Your task to perform on an android device: delete a single message in the gmail app Image 0: 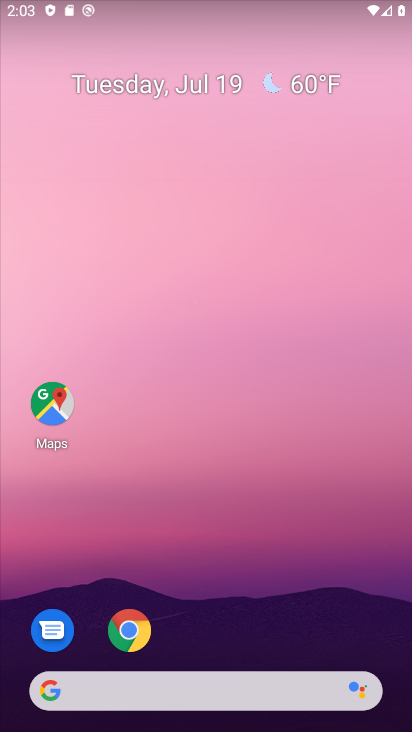
Step 0: drag from (210, 455) to (215, 206)
Your task to perform on an android device: delete a single message in the gmail app Image 1: 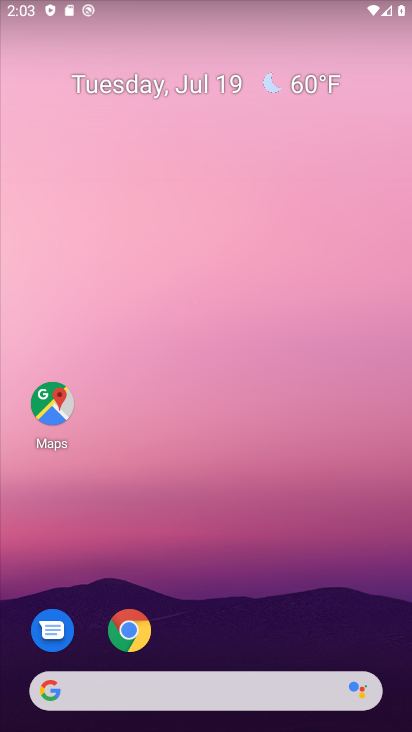
Step 1: drag from (234, 617) to (195, 159)
Your task to perform on an android device: delete a single message in the gmail app Image 2: 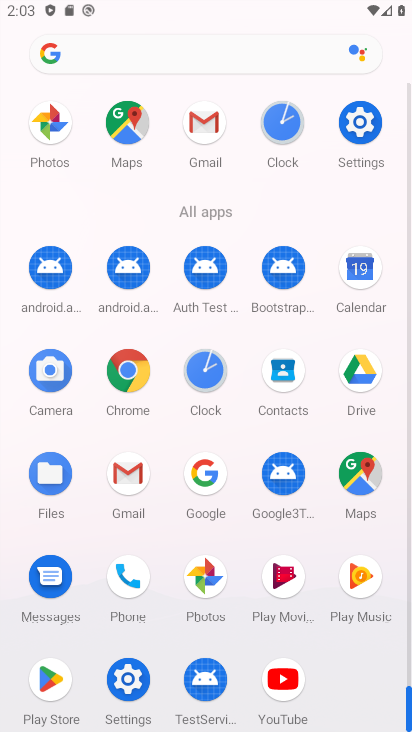
Step 2: click (366, 125)
Your task to perform on an android device: delete a single message in the gmail app Image 3: 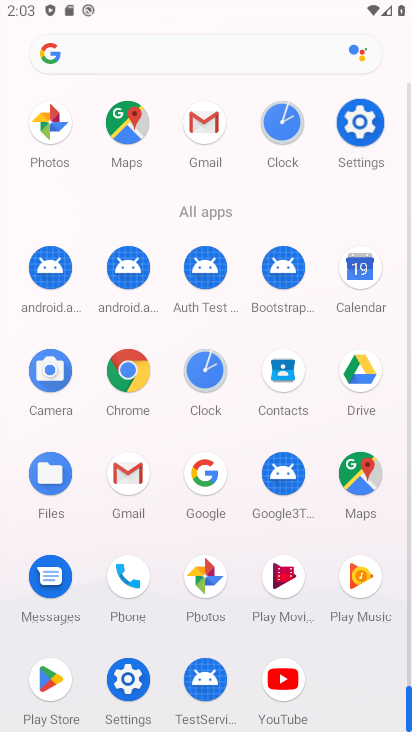
Step 3: click (376, 125)
Your task to perform on an android device: delete a single message in the gmail app Image 4: 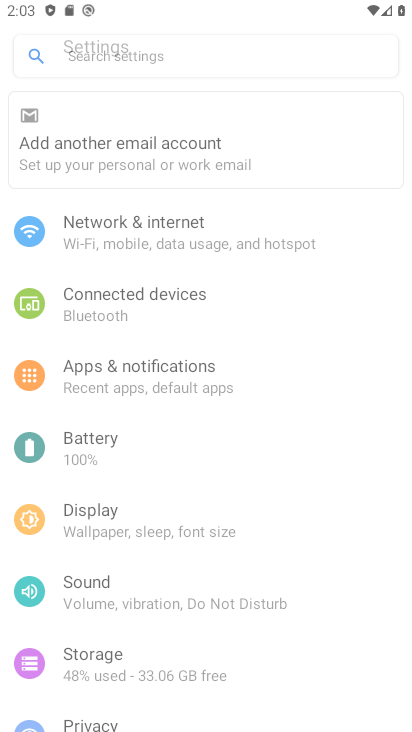
Step 4: click (369, 127)
Your task to perform on an android device: delete a single message in the gmail app Image 5: 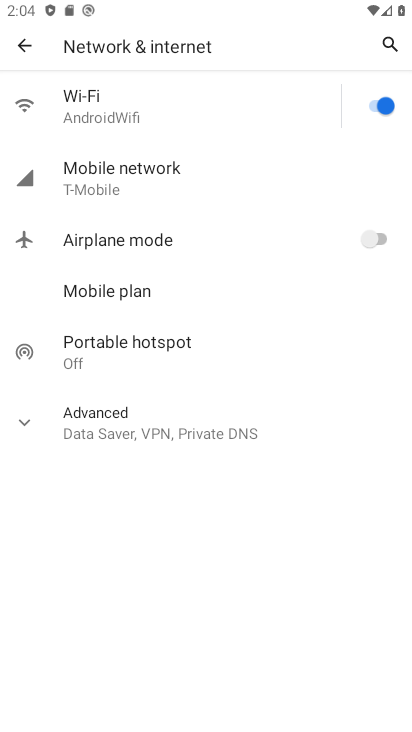
Step 5: click (28, 39)
Your task to perform on an android device: delete a single message in the gmail app Image 6: 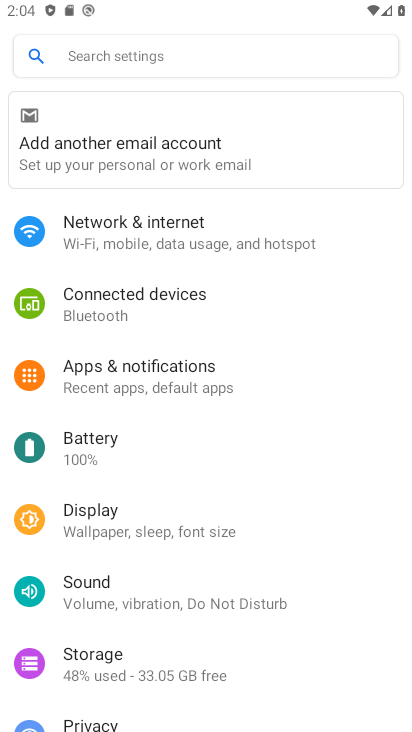
Step 6: press back button
Your task to perform on an android device: delete a single message in the gmail app Image 7: 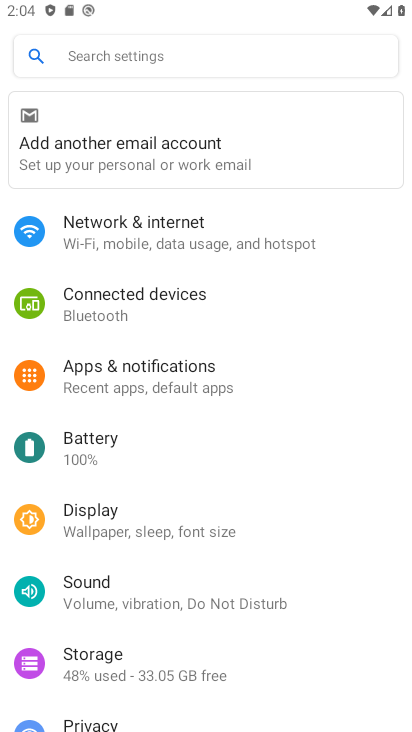
Step 7: press back button
Your task to perform on an android device: delete a single message in the gmail app Image 8: 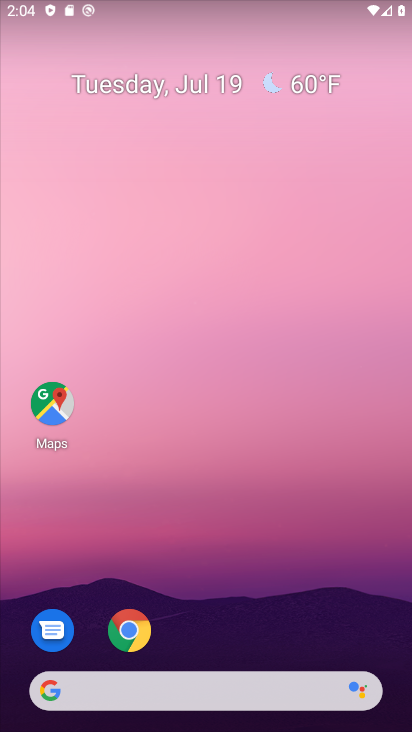
Step 8: drag from (271, 547) to (252, 25)
Your task to perform on an android device: delete a single message in the gmail app Image 9: 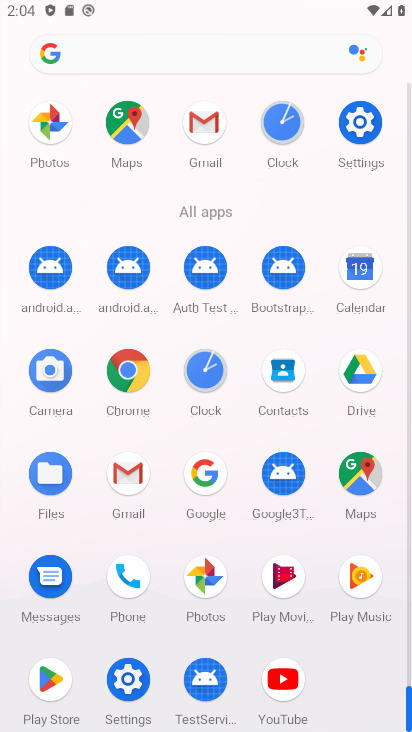
Step 9: click (119, 445)
Your task to perform on an android device: delete a single message in the gmail app Image 10: 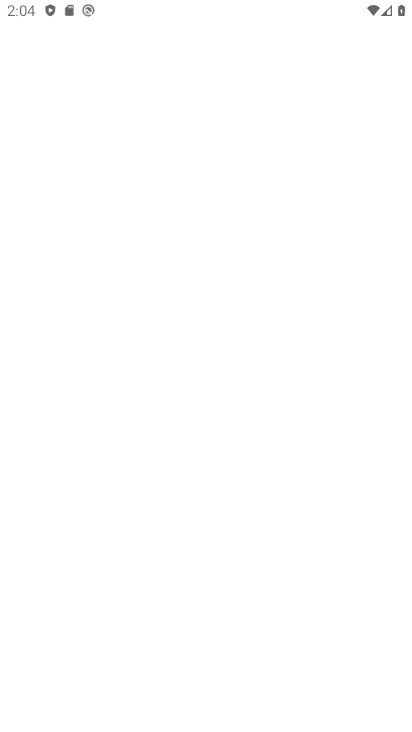
Step 10: click (129, 472)
Your task to perform on an android device: delete a single message in the gmail app Image 11: 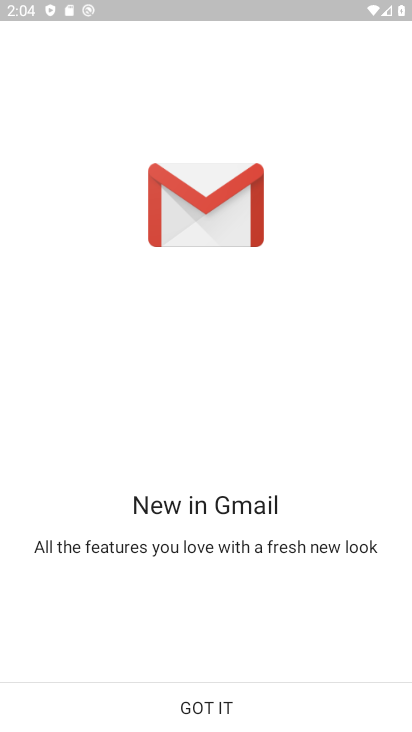
Step 11: click (212, 704)
Your task to perform on an android device: delete a single message in the gmail app Image 12: 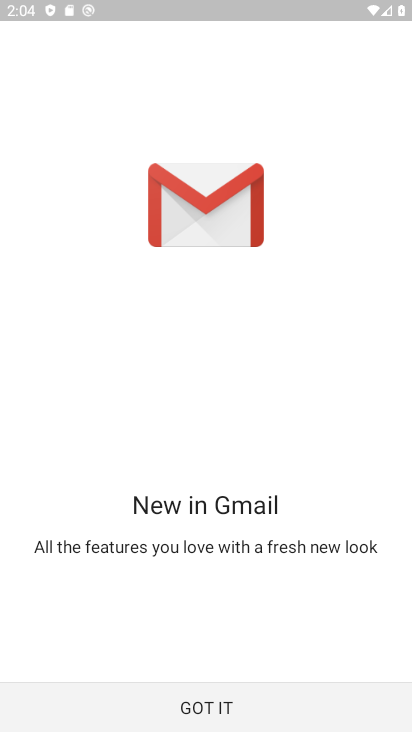
Step 12: click (212, 704)
Your task to perform on an android device: delete a single message in the gmail app Image 13: 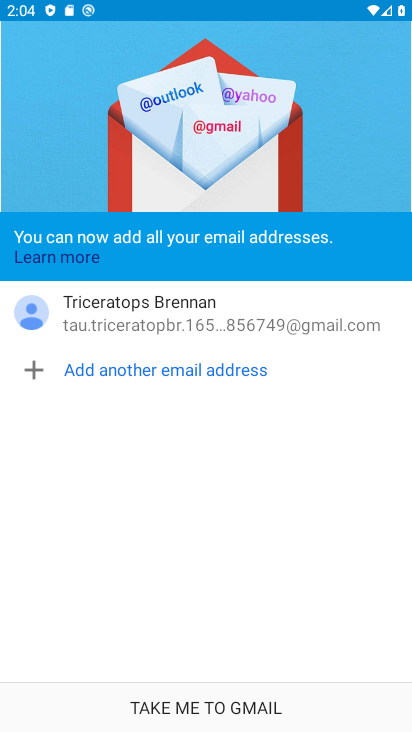
Step 13: click (213, 707)
Your task to perform on an android device: delete a single message in the gmail app Image 14: 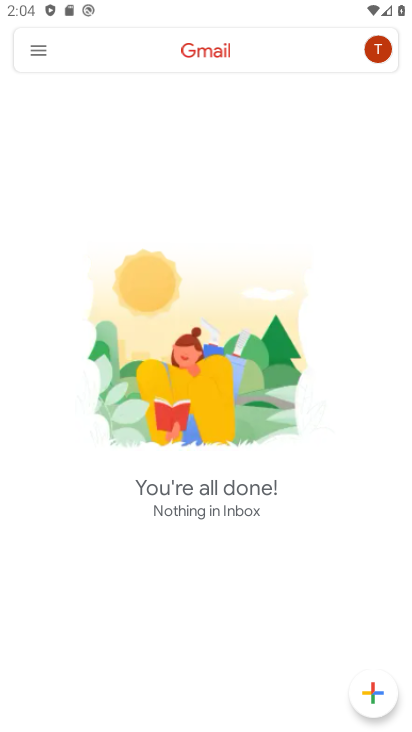
Step 14: click (34, 49)
Your task to perform on an android device: delete a single message in the gmail app Image 15: 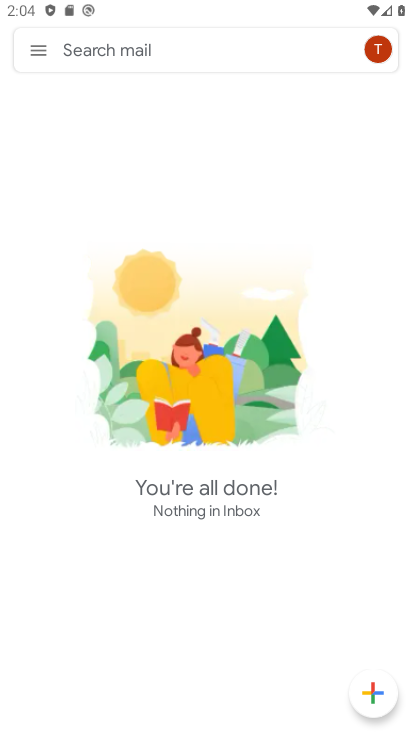
Step 15: drag from (38, 58) to (30, 435)
Your task to perform on an android device: delete a single message in the gmail app Image 16: 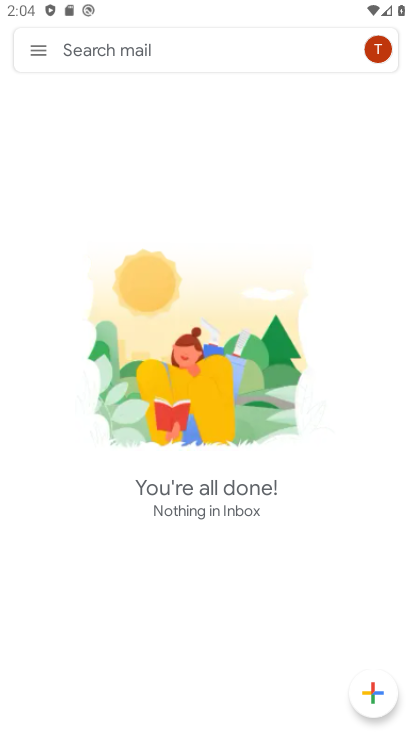
Step 16: drag from (37, 51) to (66, 270)
Your task to perform on an android device: delete a single message in the gmail app Image 17: 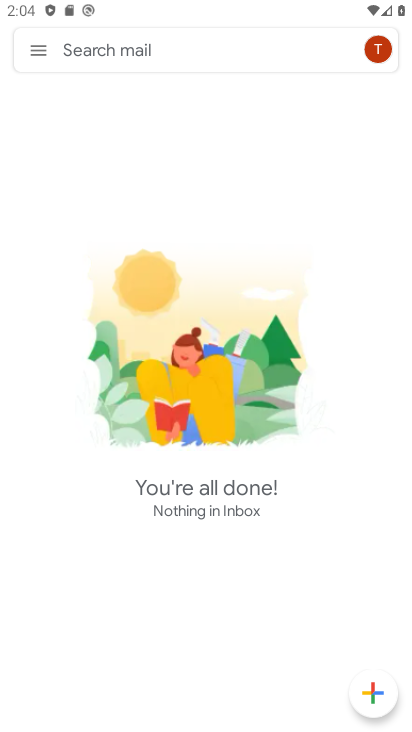
Step 17: drag from (34, 47) to (69, 375)
Your task to perform on an android device: delete a single message in the gmail app Image 18: 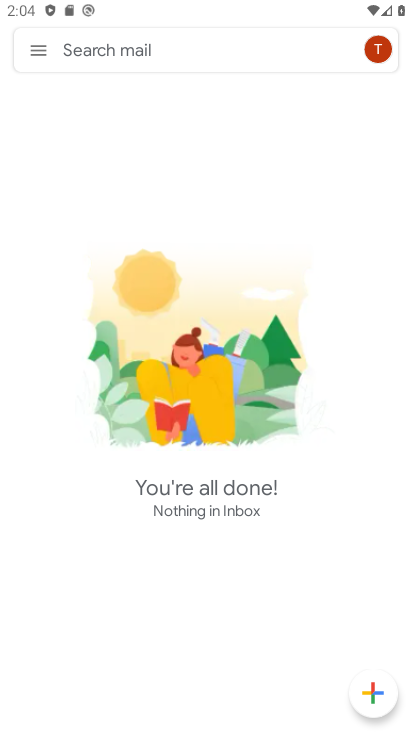
Step 18: click (28, 50)
Your task to perform on an android device: delete a single message in the gmail app Image 19: 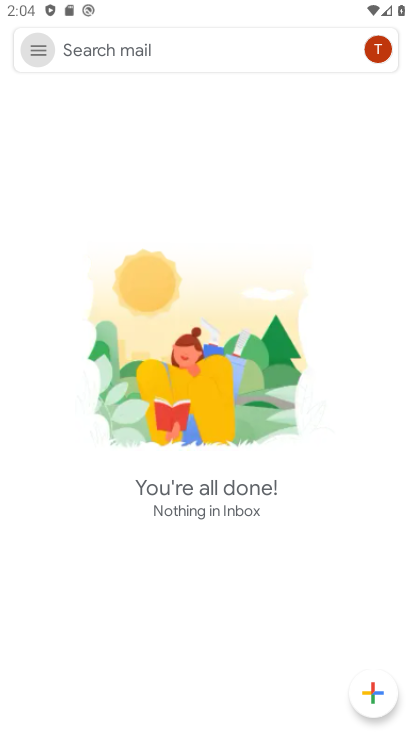
Step 19: click (33, 60)
Your task to perform on an android device: delete a single message in the gmail app Image 20: 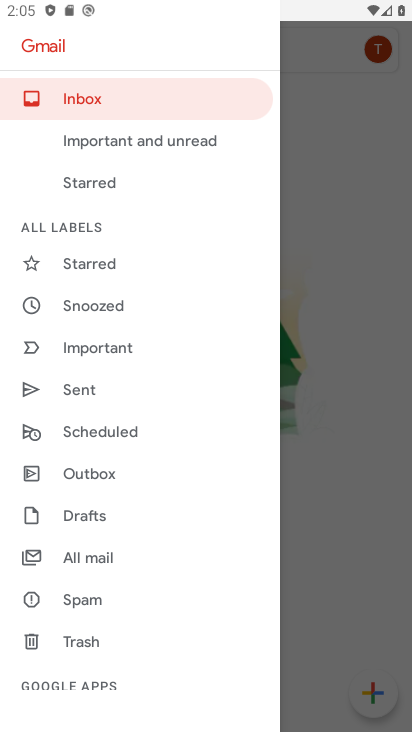
Step 20: click (88, 545)
Your task to perform on an android device: delete a single message in the gmail app Image 21: 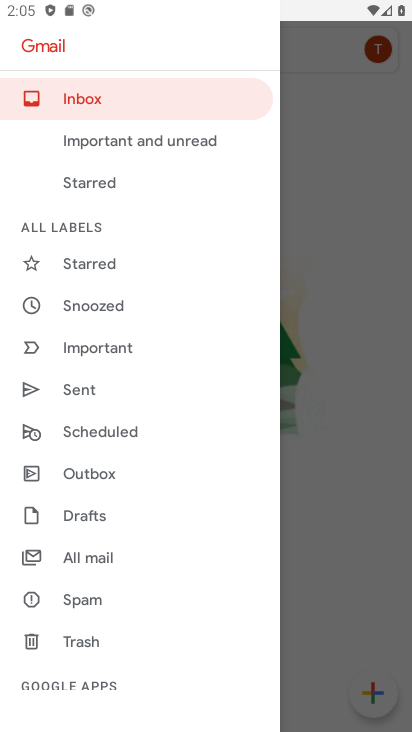
Step 21: click (88, 545)
Your task to perform on an android device: delete a single message in the gmail app Image 22: 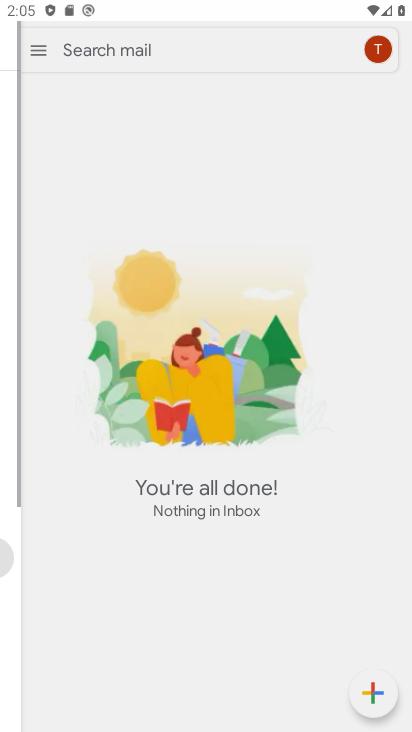
Step 22: click (88, 545)
Your task to perform on an android device: delete a single message in the gmail app Image 23: 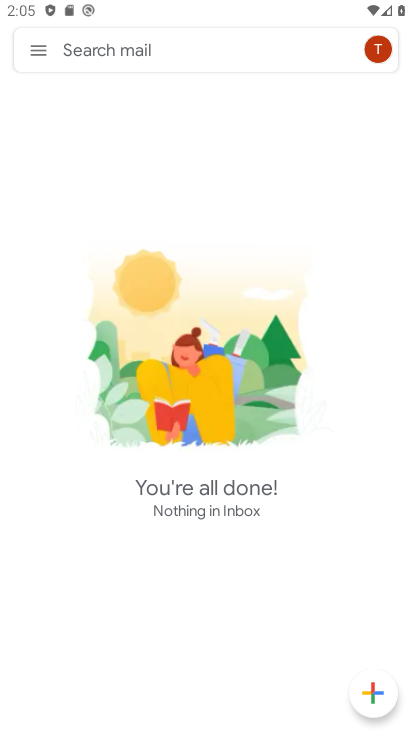
Step 23: click (88, 545)
Your task to perform on an android device: delete a single message in the gmail app Image 24: 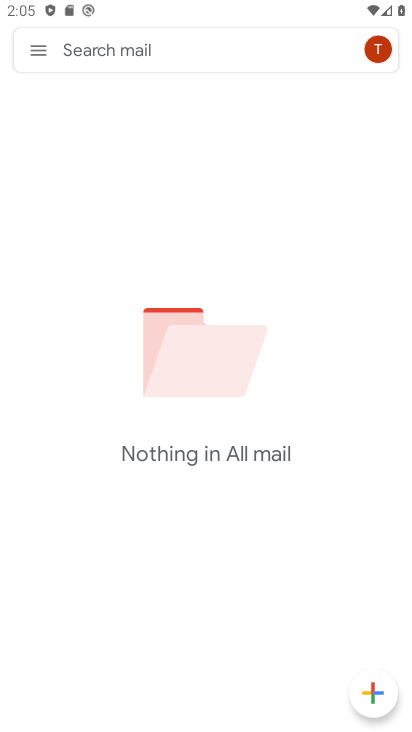
Step 24: task complete